Your task to perform on an android device: Go to Amazon Image 0: 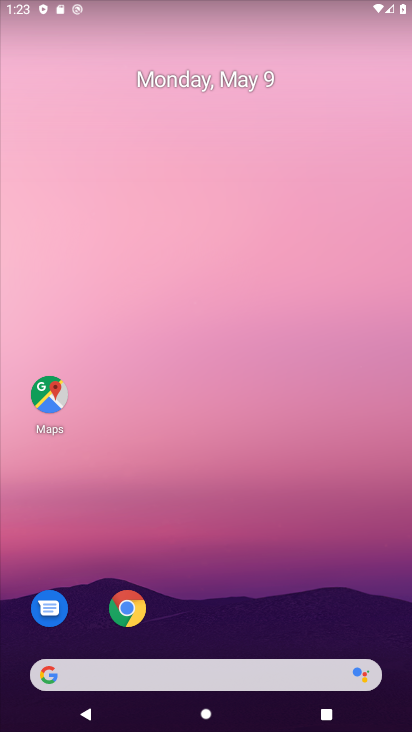
Step 0: click (315, 132)
Your task to perform on an android device: Go to Amazon Image 1: 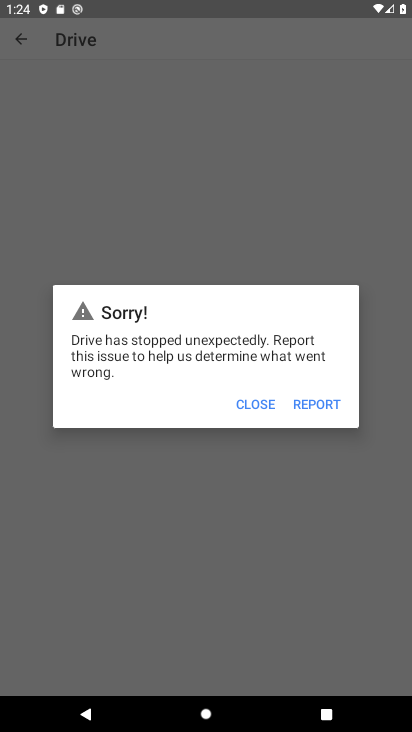
Step 1: press home button
Your task to perform on an android device: Go to Amazon Image 2: 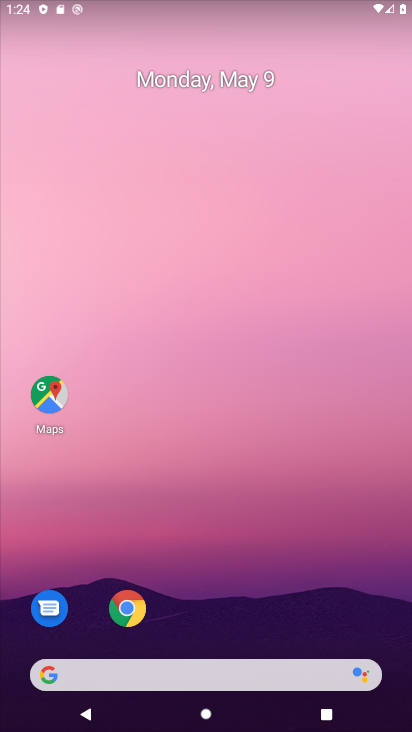
Step 2: click (145, 602)
Your task to perform on an android device: Go to Amazon Image 3: 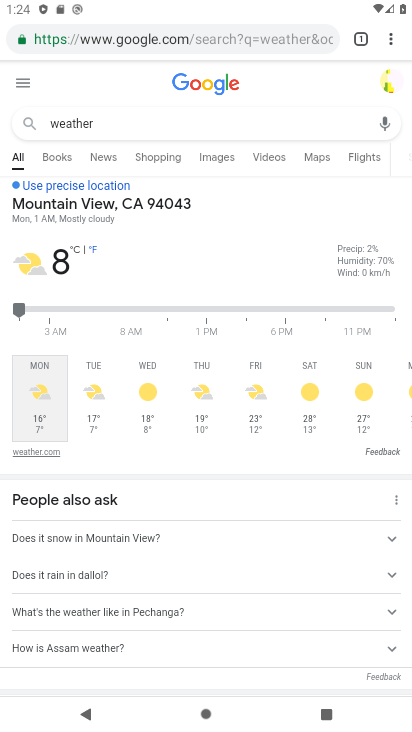
Step 3: drag from (390, 26) to (286, 69)
Your task to perform on an android device: Go to Amazon Image 4: 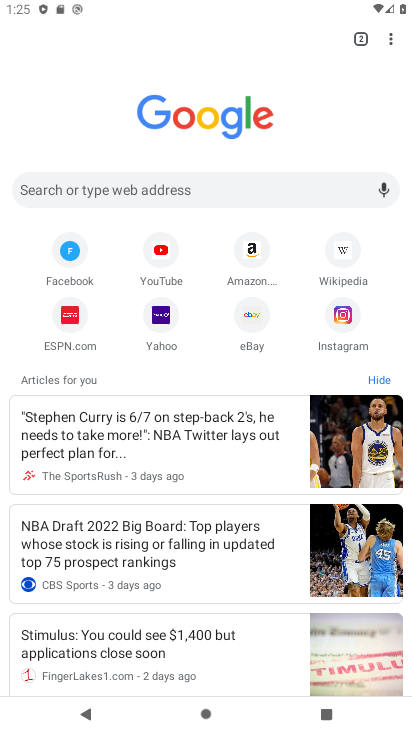
Step 4: click (233, 246)
Your task to perform on an android device: Go to Amazon Image 5: 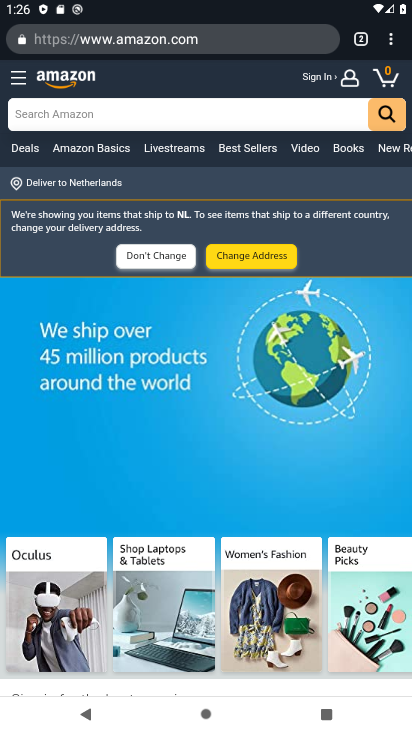
Step 5: task complete